Your task to perform on an android device: Is it going to rain today? Image 0: 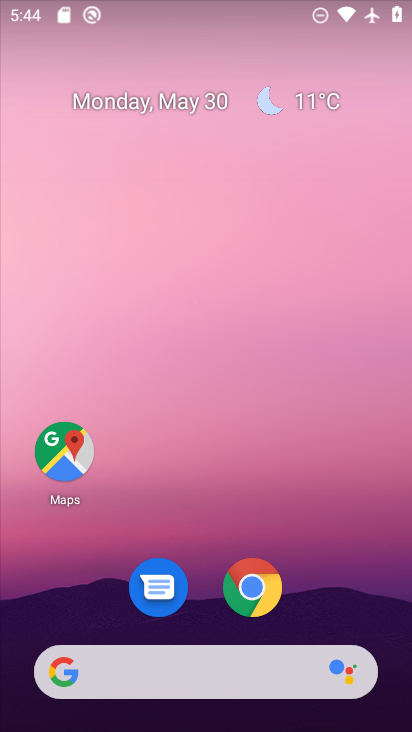
Step 0: drag from (349, 585) to (241, 39)
Your task to perform on an android device: Is it going to rain today? Image 1: 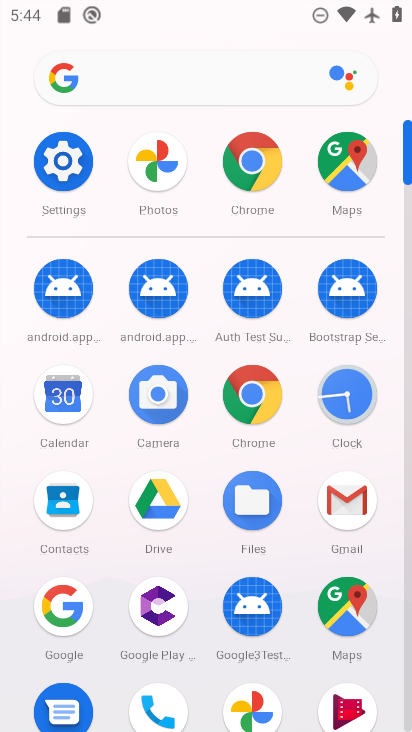
Step 1: drag from (3, 578) to (20, 247)
Your task to perform on an android device: Is it going to rain today? Image 2: 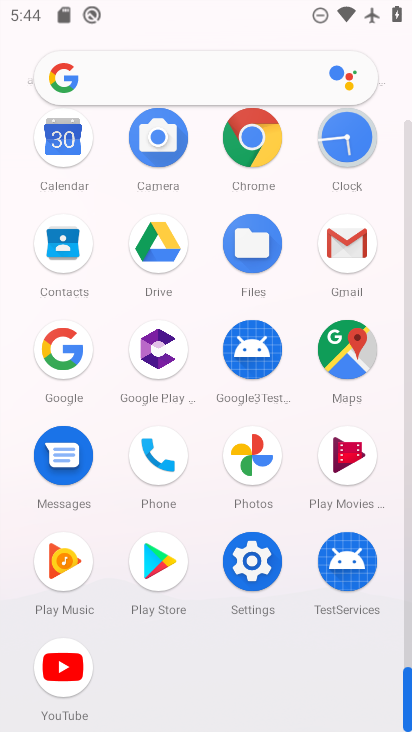
Step 2: click (247, 138)
Your task to perform on an android device: Is it going to rain today? Image 3: 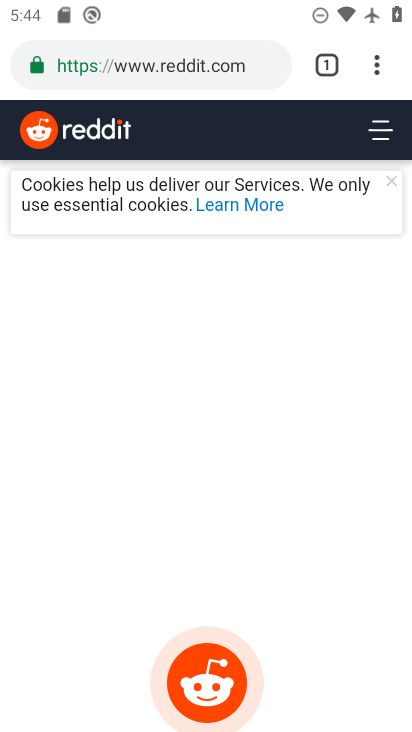
Step 3: click (170, 67)
Your task to perform on an android device: Is it going to rain today? Image 4: 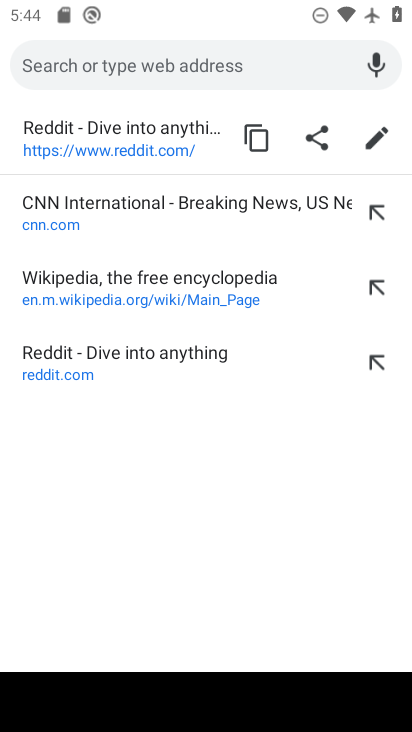
Step 4: type "Is it going to rain today?"
Your task to perform on an android device: Is it going to rain today? Image 5: 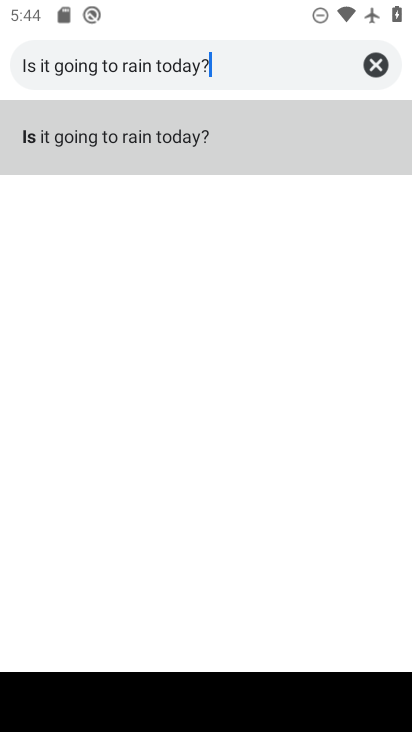
Step 5: click (146, 147)
Your task to perform on an android device: Is it going to rain today? Image 6: 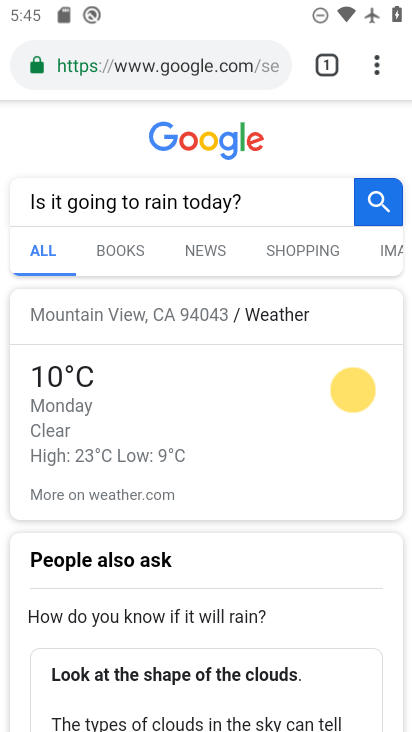
Step 6: task complete